Your task to perform on an android device: Search for pizza restaurants on Maps Image 0: 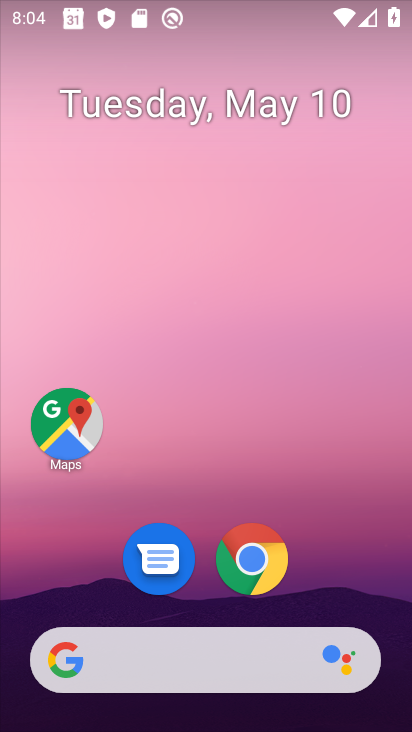
Step 0: click (85, 420)
Your task to perform on an android device: Search for pizza restaurants on Maps Image 1: 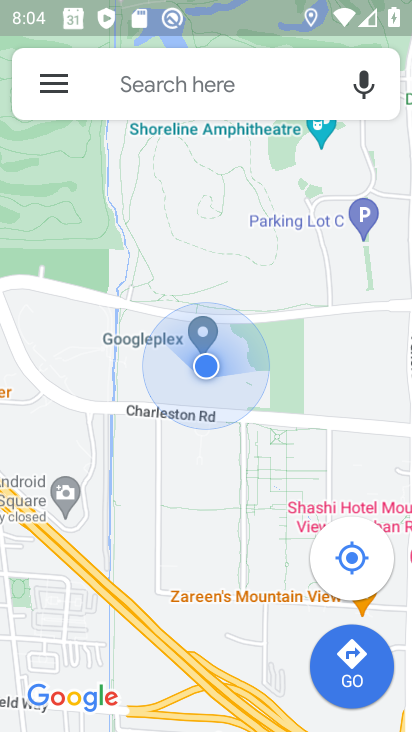
Step 1: click (201, 91)
Your task to perform on an android device: Search for pizza restaurants on Maps Image 2: 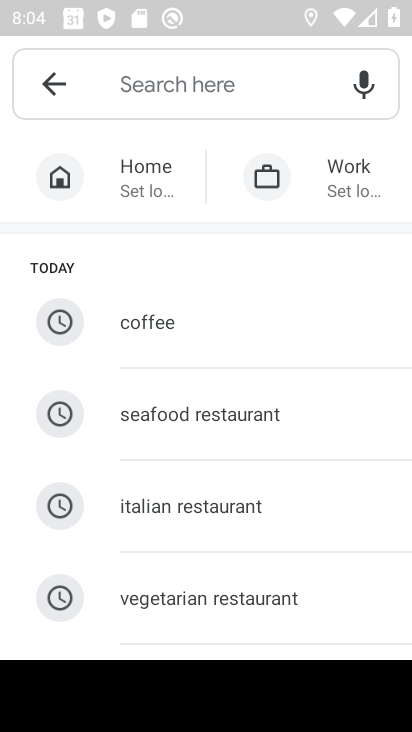
Step 2: drag from (269, 537) to (230, 222)
Your task to perform on an android device: Search for pizza restaurants on Maps Image 3: 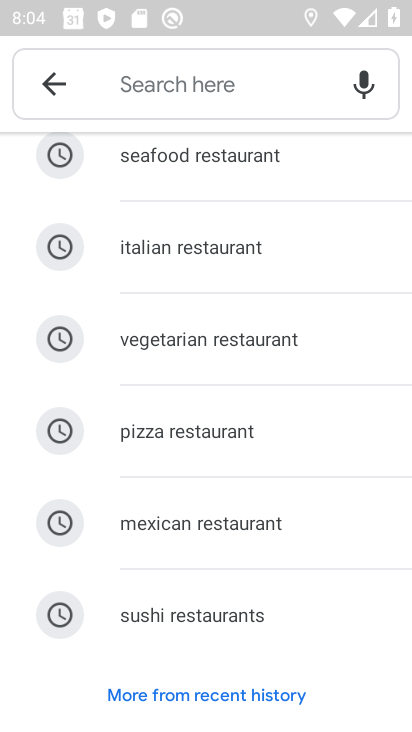
Step 3: click (194, 424)
Your task to perform on an android device: Search for pizza restaurants on Maps Image 4: 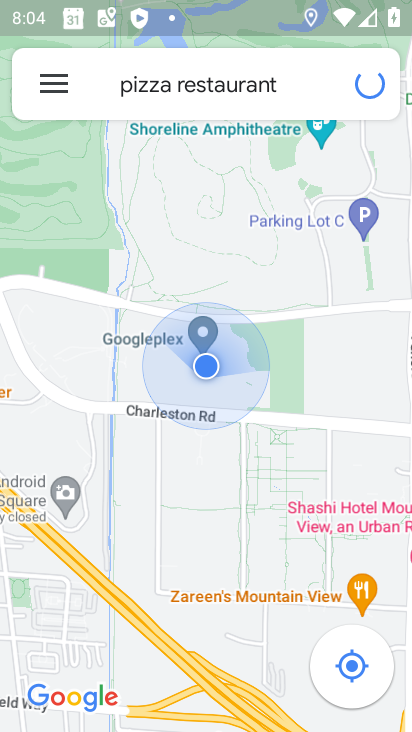
Step 4: task complete